Your task to perform on an android device: change the clock display to analog Image 0: 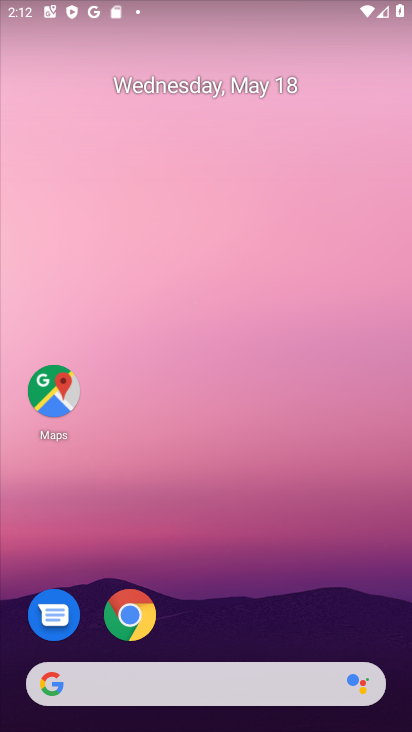
Step 0: drag from (227, 625) to (220, 267)
Your task to perform on an android device: change the clock display to analog Image 1: 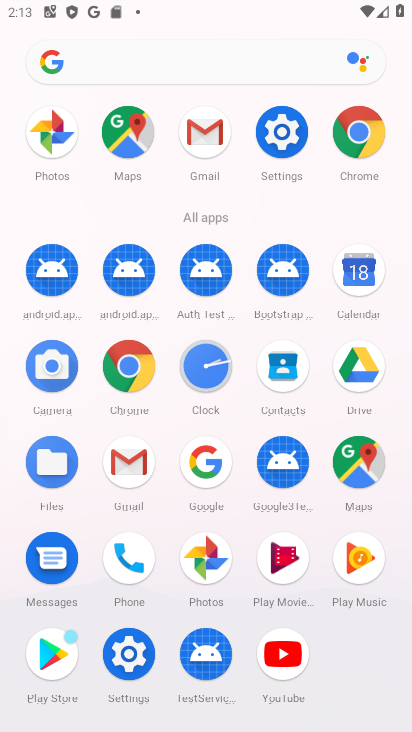
Step 1: click (207, 354)
Your task to perform on an android device: change the clock display to analog Image 2: 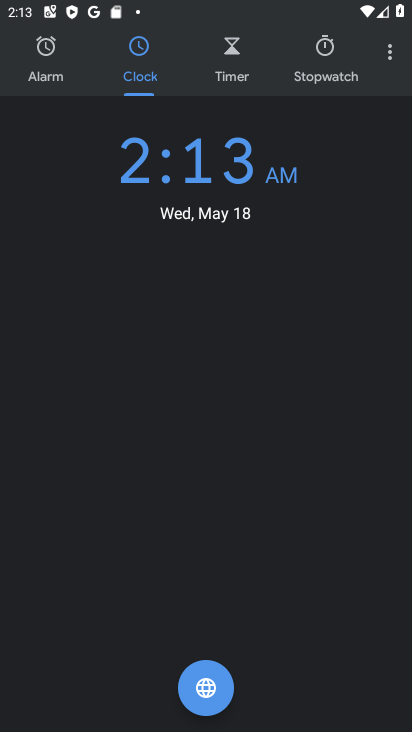
Step 2: click (383, 61)
Your task to perform on an android device: change the clock display to analog Image 3: 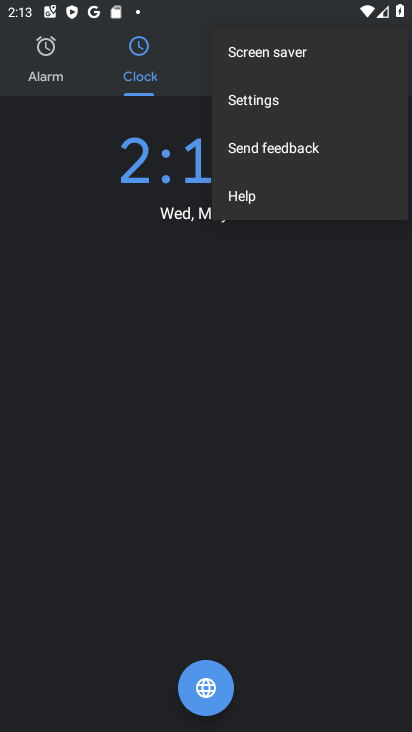
Step 3: click (341, 103)
Your task to perform on an android device: change the clock display to analog Image 4: 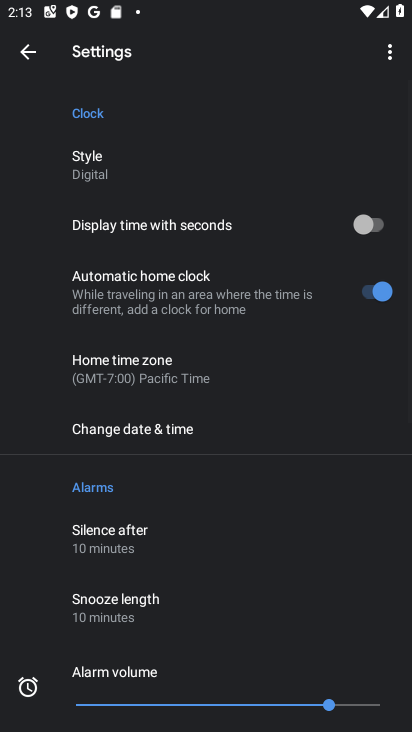
Step 4: click (235, 173)
Your task to perform on an android device: change the clock display to analog Image 5: 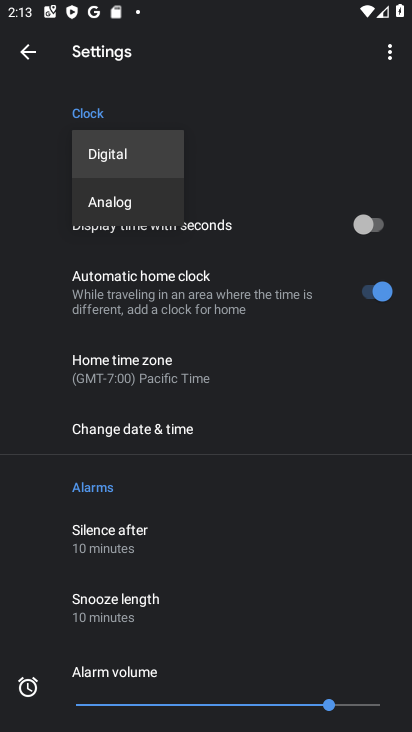
Step 5: click (157, 211)
Your task to perform on an android device: change the clock display to analog Image 6: 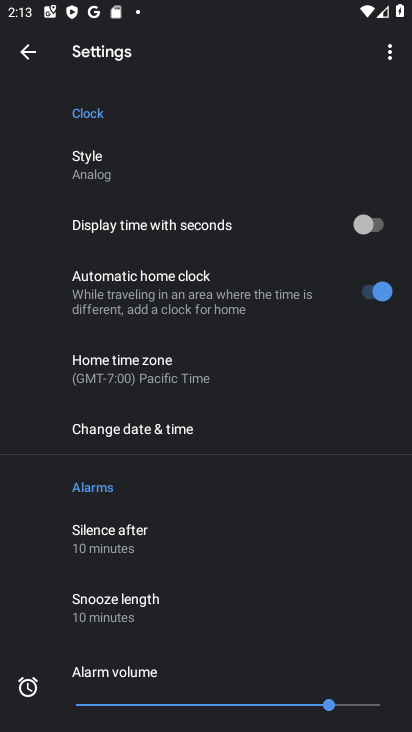
Step 6: task complete